Your task to perform on an android device: Open the calendar and show me this week's events? Image 0: 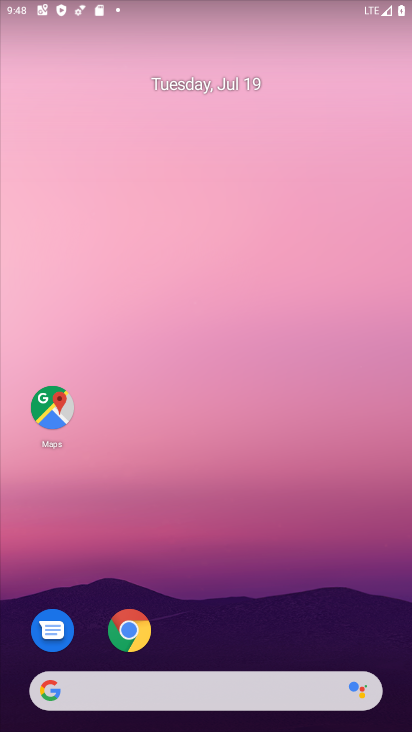
Step 0: press home button
Your task to perform on an android device: Open the calendar and show me this week's events? Image 1: 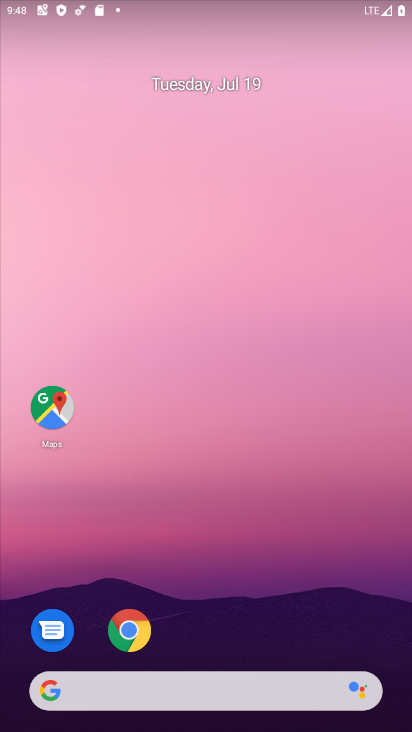
Step 1: drag from (224, 664) to (257, 286)
Your task to perform on an android device: Open the calendar and show me this week's events? Image 2: 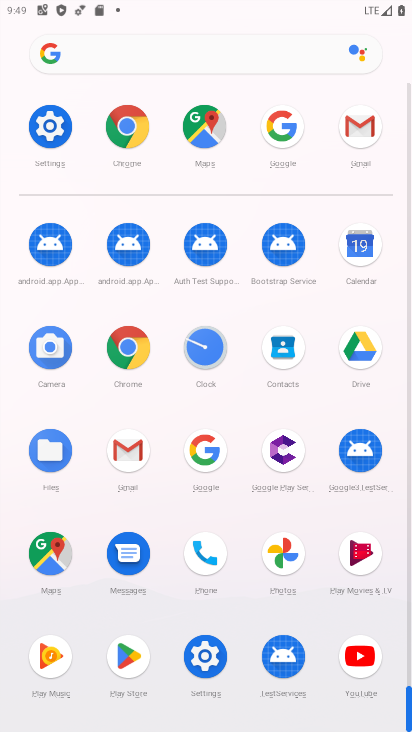
Step 2: click (366, 263)
Your task to perform on an android device: Open the calendar and show me this week's events? Image 3: 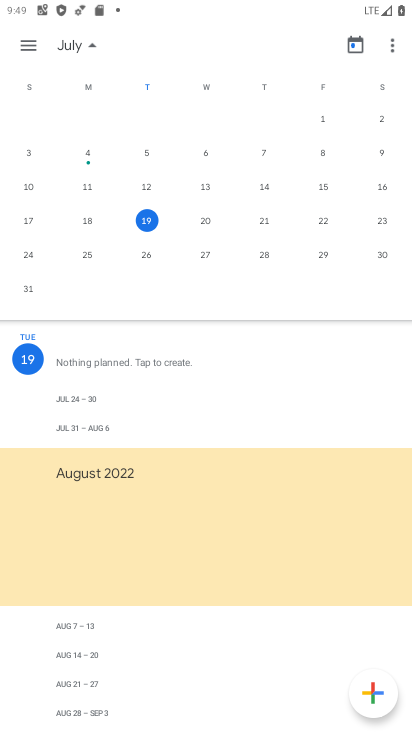
Step 3: click (149, 229)
Your task to perform on an android device: Open the calendar and show me this week's events? Image 4: 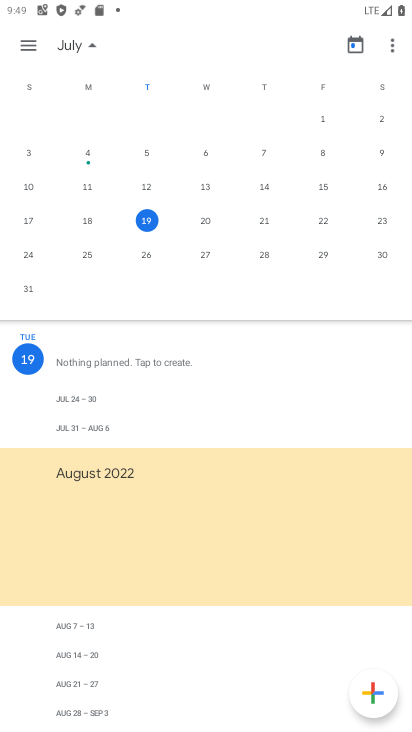
Step 4: task complete